Your task to perform on an android device: Turn off the flashlight Image 0: 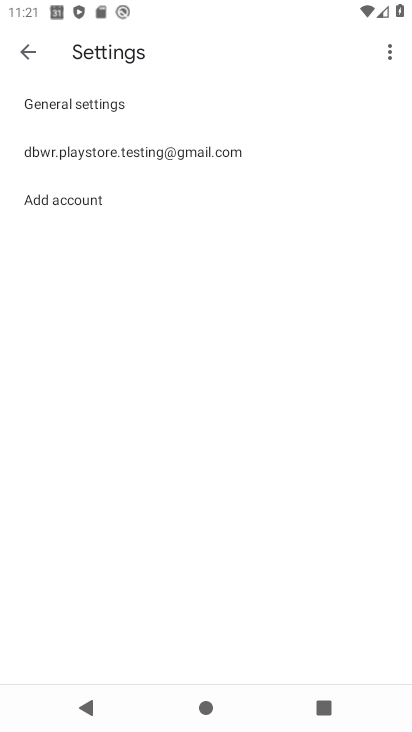
Step 0: press home button
Your task to perform on an android device: Turn off the flashlight Image 1: 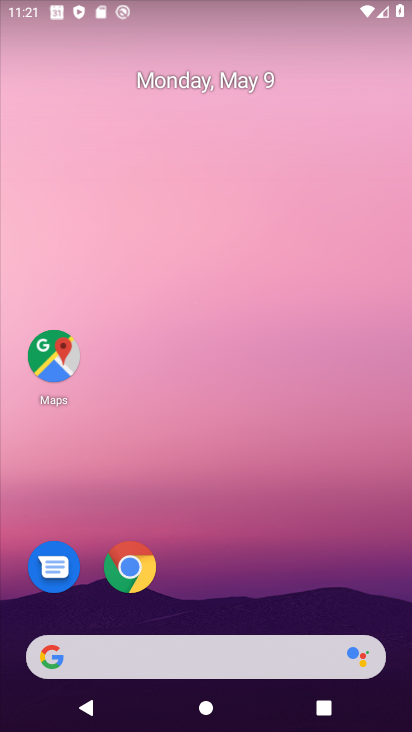
Step 1: drag from (338, 577) to (331, 97)
Your task to perform on an android device: Turn off the flashlight Image 2: 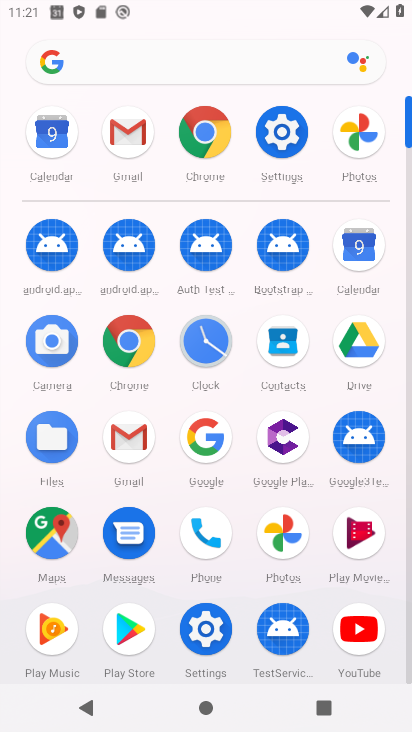
Step 2: click (280, 118)
Your task to perform on an android device: Turn off the flashlight Image 3: 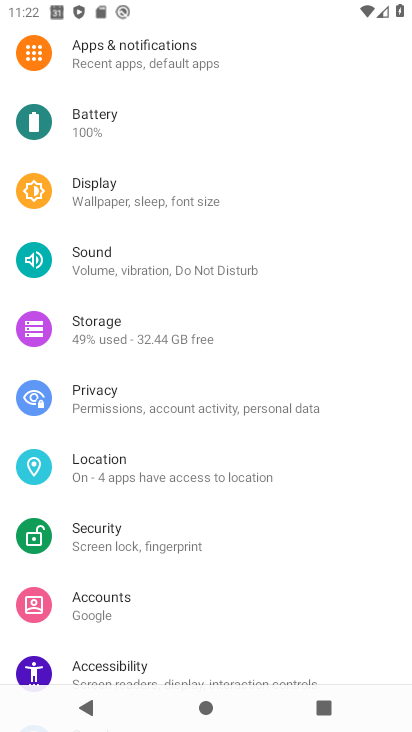
Step 3: task complete